Your task to perform on an android device: visit the assistant section in the google photos Image 0: 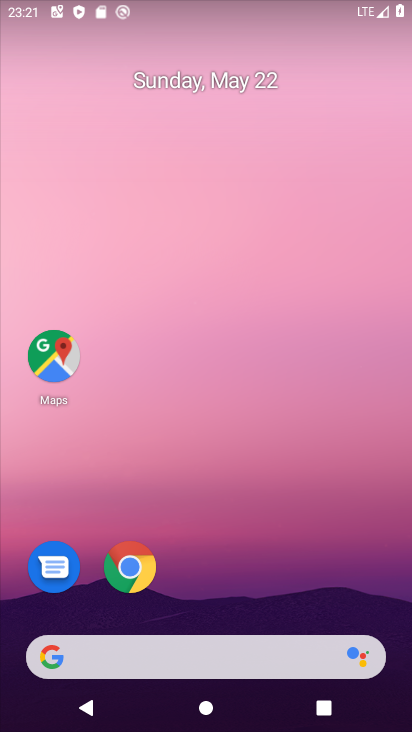
Step 0: drag from (263, 384) to (217, 0)
Your task to perform on an android device: visit the assistant section in the google photos Image 1: 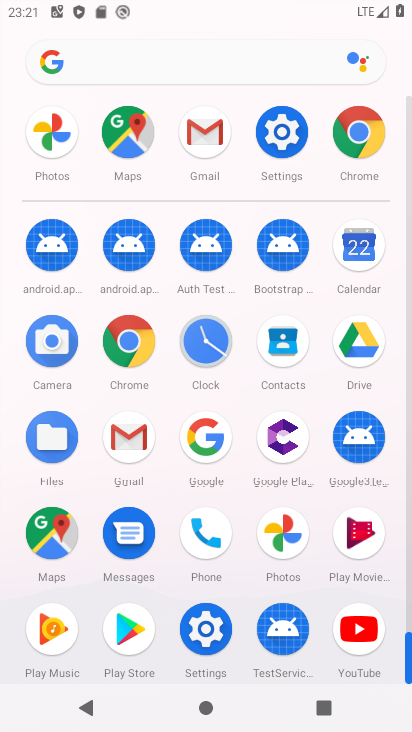
Step 1: drag from (15, 466) to (20, 136)
Your task to perform on an android device: visit the assistant section in the google photos Image 2: 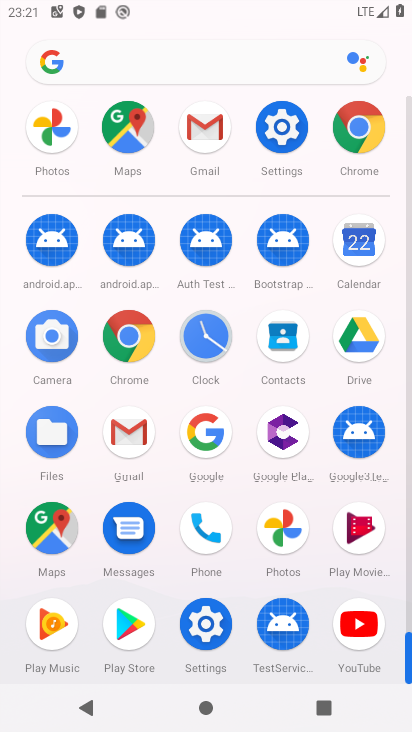
Step 2: click (283, 523)
Your task to perform on an android device: visit the assistant section in the google photos Image 3: 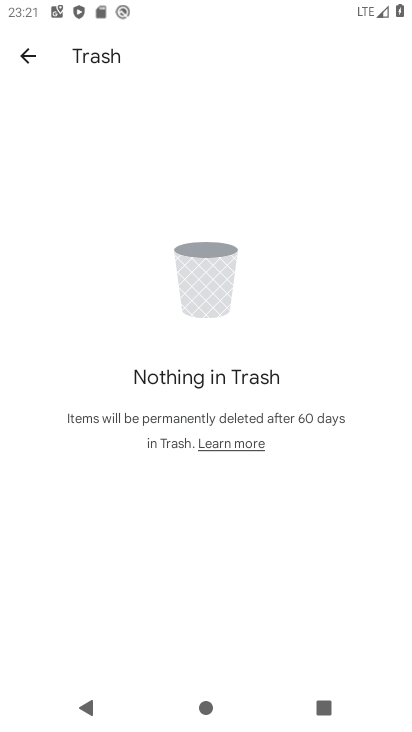
Step 3: click (43, 59)
Your task to perform on an android device: visit the assistant section in the google photos Image 4: 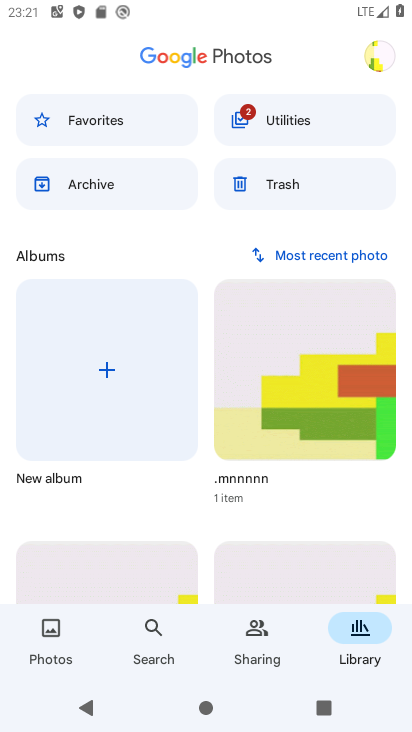
Step 4: click (357, 670)
Your task to perform on an android device: visit the assistant section in the google photos Image 5: 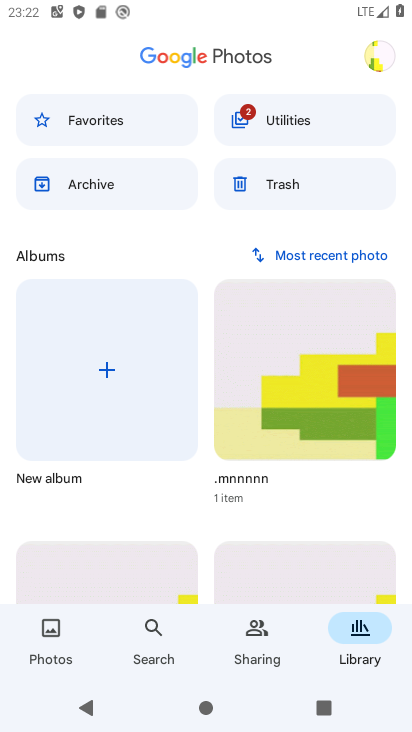
Step 5: task complete